Your task to perform on an android device: check the backup settings in the google photos Image 0: 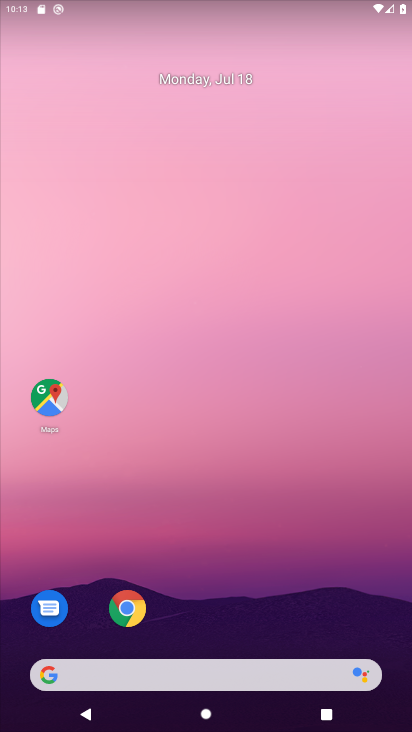
Step 0: drag from (184, 628) to (102, 102)
Your task to perform on an android device: check the backup settings in the google photos Image 1: 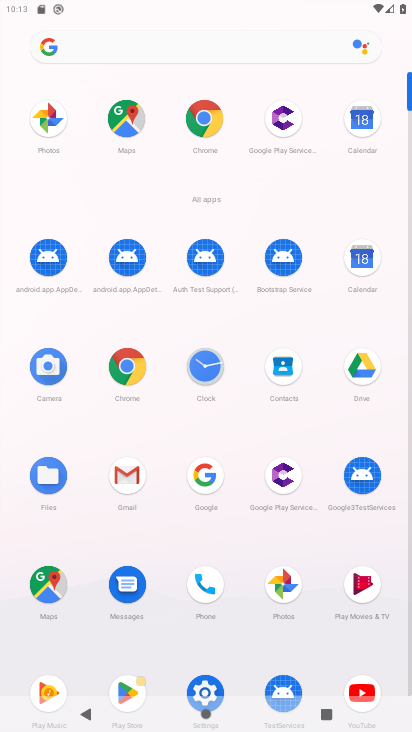
Step 1: click (276, 574)
Your task to perform on an android device: check the backup settings in the google photos Image 2: 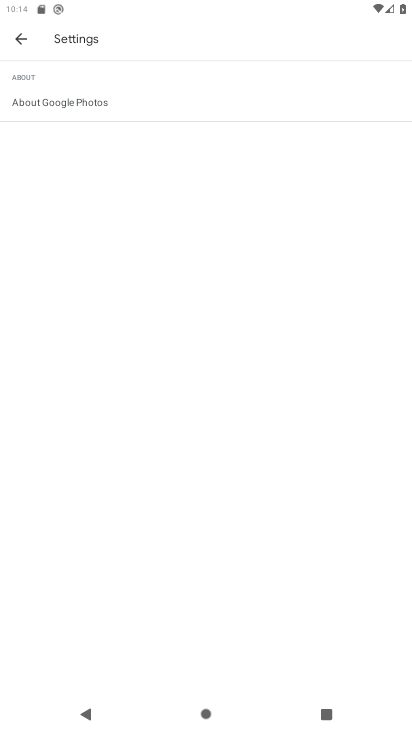
Step 2: click (22, 39)
Your task to perform on an android device: check the backup settings in the google photos Image 3: 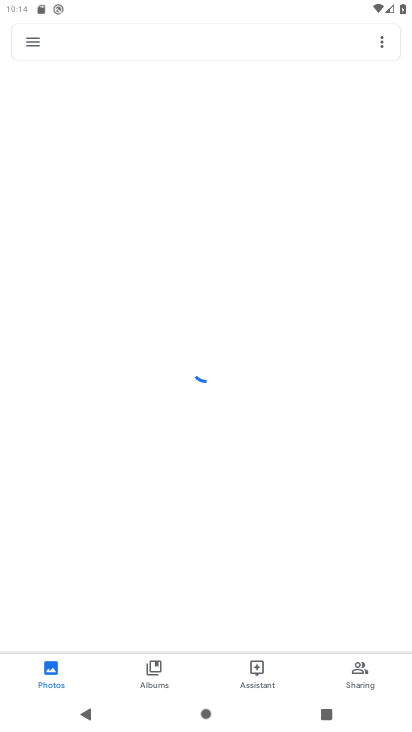
Step 3: click (30, 46)
Your task to perform on an android device: check the backup settings in the google photos Image 4: 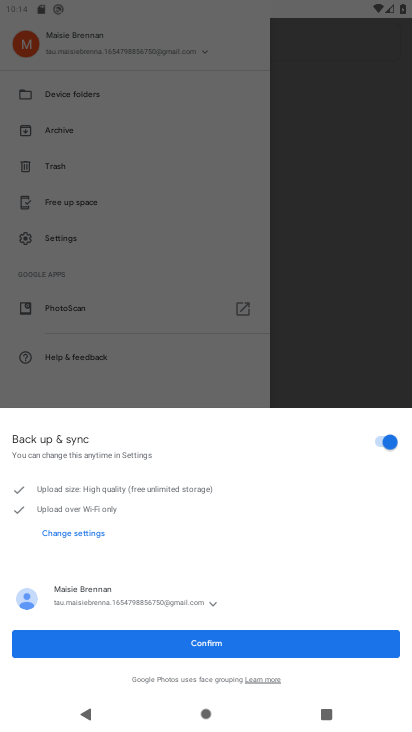
Step 4: click (237, 652)
Your task to perform on an android device: check the backup settings in the google photos Image 5: 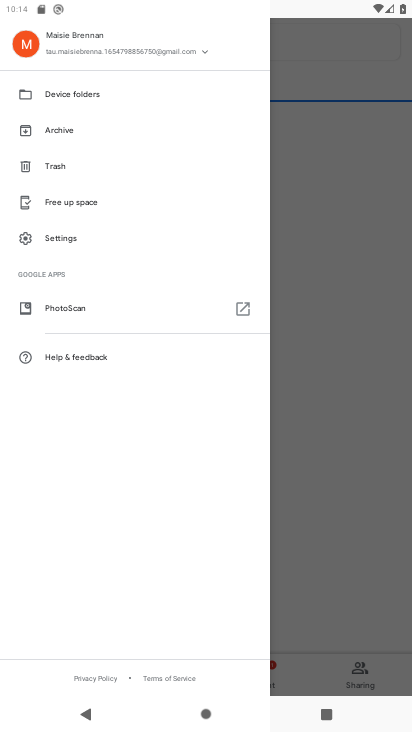
Step 5: click (58, 247)
Your task to perform on an android device: check the backup settings in the google photos Image 6: 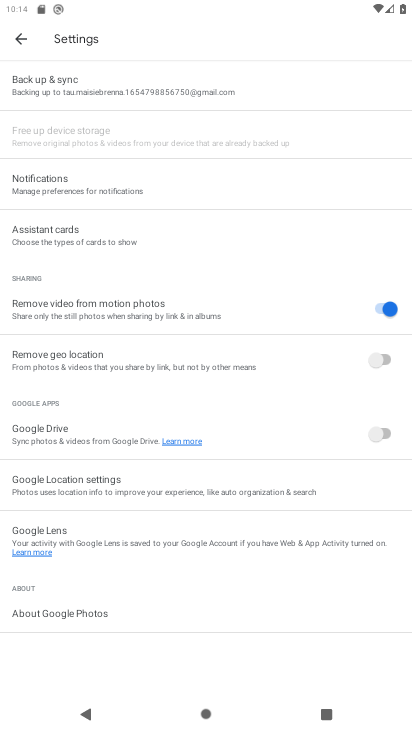
Step 6: click (56, 94)
Your task to perform on an android device: check the backup settings in the google photos Image 7: 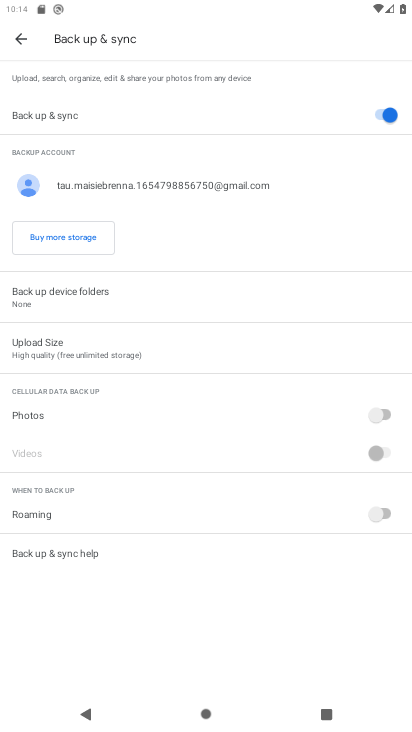
Step 7: task complete